Your task to perform on an android device: Search for "energizer triple a" on amazon.com, select the first entry, and add it to the cart. Image 0: 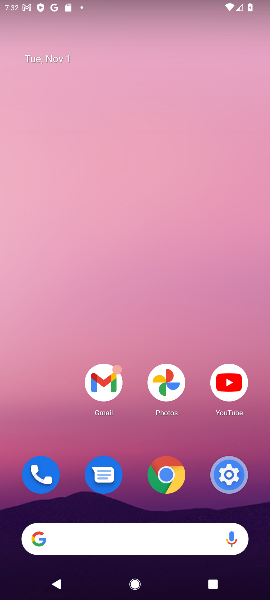
Step 0: click (104, 560)
Your task to perform on an android device: Search for "energizer triple a" on amazon.com, select the first entry, and add it to the cart. Image 1: 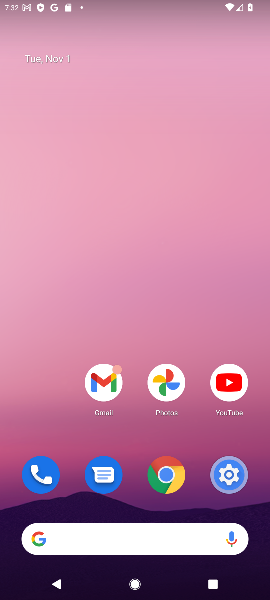
Step 1: click (132, 540)
Your task to perform on an android device: Search for "energizer triple a" on amazon.com, select the first entry, and add it to the cart. Image 2: 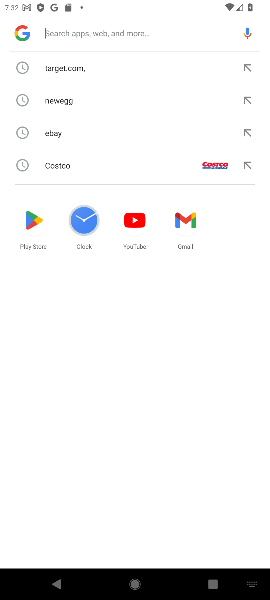
Step 2: type " amazon.com,"
Your task to perform on an android device: Search for "energizer triple a" on amazon.com, select the first entry, and add it to the cart. Image 3: 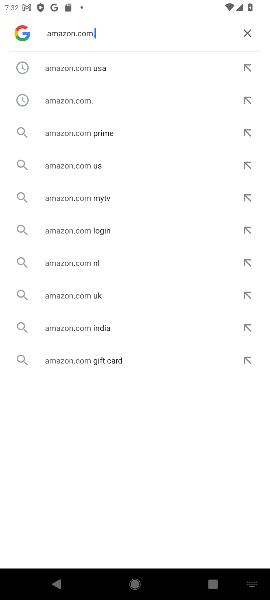
Step 3: click (64, 107)
Your task to perform on an android device: Search for "energizer triple a" on amazon.com, select the first entry, and add it to the cart. Image 4: 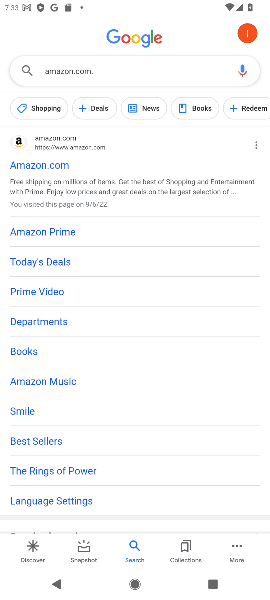
Step 4: click (25, 168)
Your task to perform on an android device: Search for "energizer triple a" on amazon.com, select the first entry, and add it to the cart. Image 5: 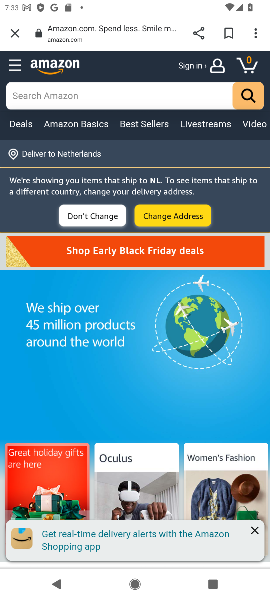
Step 5: click (92, 88)
Your task to perform on an android device: Search for "energizer triple a" on amazon.com, select the first entry, and add it to the cart. Image 6: 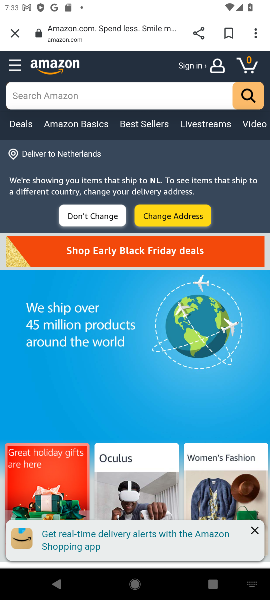
Step 6: type "energizer triple a"
Your task to perform on an android device: Search for "energizer triple a" on amazon.com, select the first entry, and add it to the cart. Image 7: 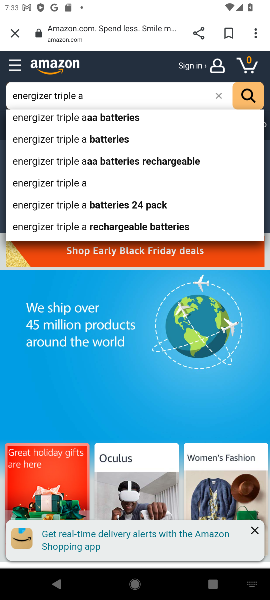
Step 7: click (71, 183)
Your task to perform on an android device: Search for "energizer triple a" on amazon.com, select the first entry, and add it to the cart. Image 8: 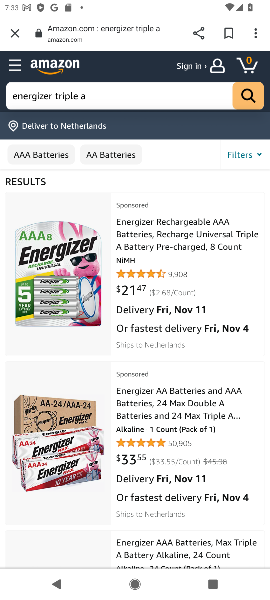
Step 8: click (84, 237)
Your task to perform on an android device: Search for "energizer triple a" on amazon.com, select the first entry, and add it to the cart. Image 9: 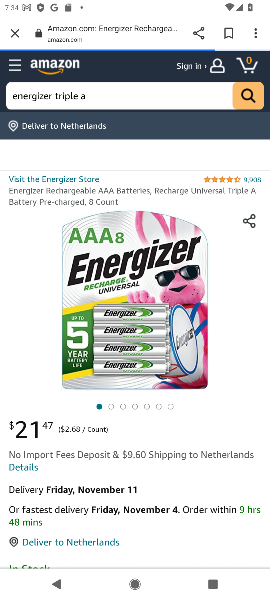
Step 9: drag from (171, 439) to (169, 311)
Your task to perform on an android device: Search for "energizer triple a" on amazon.com, select the first entry, and add it to the cart. Image 10: 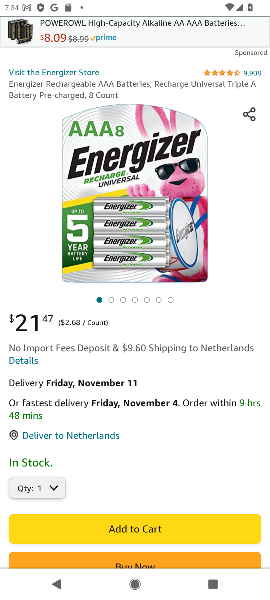
Step 10: click (139, 525)
Your task to perform on an android device: Search for "energizer triple a" on amazon.com, select the first entry, and add it to the cart. Image 11: 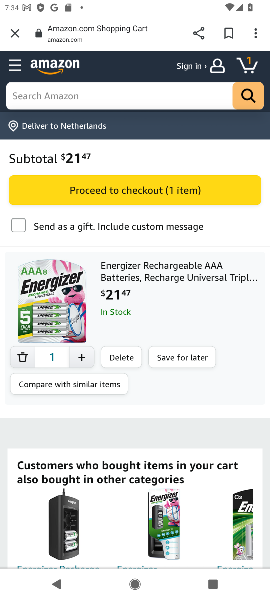
Step 11: drag from (158, 495) to (158, 201)
Your task to perform on an android device: Search for "energizer triple a" on amazon.com, select the first entry, and add it to the cart. Image 12: 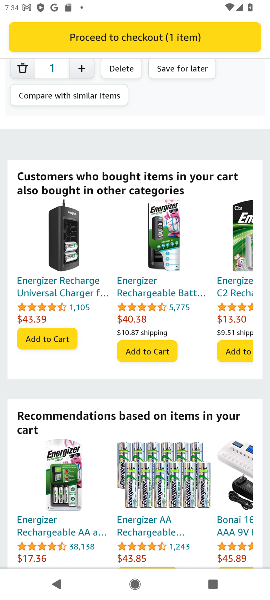
Step 12: drag from (124, 445) to (141, 179)
Your task to perform on an android device: Search for "energizer triple a" on amazon.com, select the first entry, and add it to the cart. Image 13: 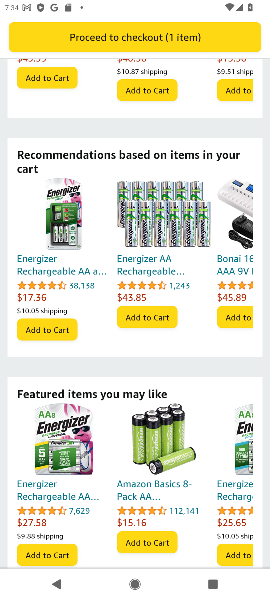
Step 13: drag from (172, 414) to (174, 242)
Your task to perform on an android device: Search for "energizer triple a" on amazon.com, select the first entry, and add it to the cart. Image 14: 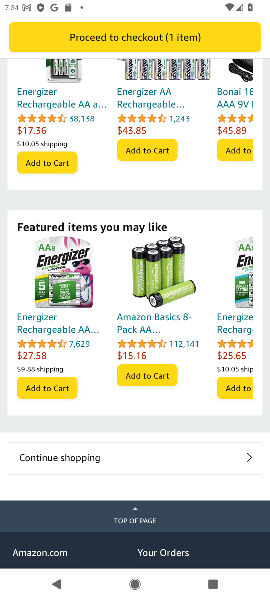
Step 14: drag from (143, 294) to (146, 503)
Your task to perform on an android device: Search for "energizer triple a" on amazon.com, select the first entry, and add it to the cart. Image 15: 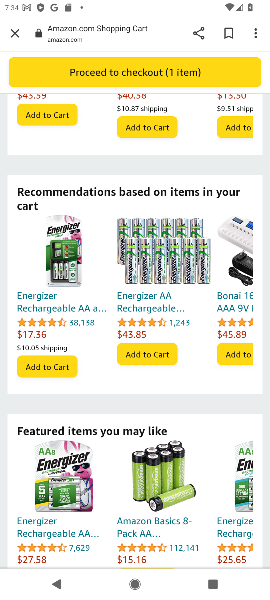
Step 15: drag from (58, 272) to (60, 368)
Your task to perform on an android device: Search for "energizer triple a" on amazon.com, select the first entry, and add it to the cart. Image 16: 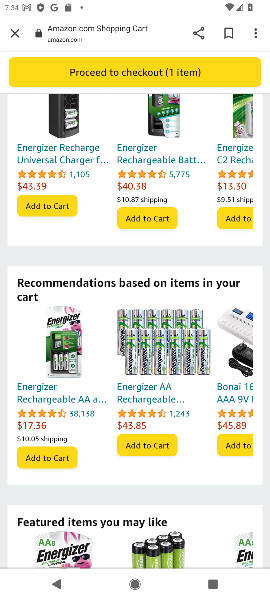
Step 16: click (47, 197)
Your task to perform on an android device: Search for "energizer triple a" on amazon.com, select the first entry, and add it to the cart. Image 17: 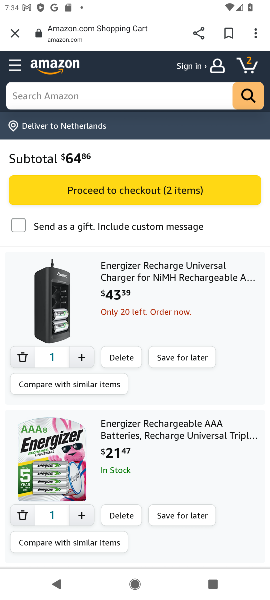
Step 17: task complete